Your task to perform on an android device: Open sound settings Image 0: 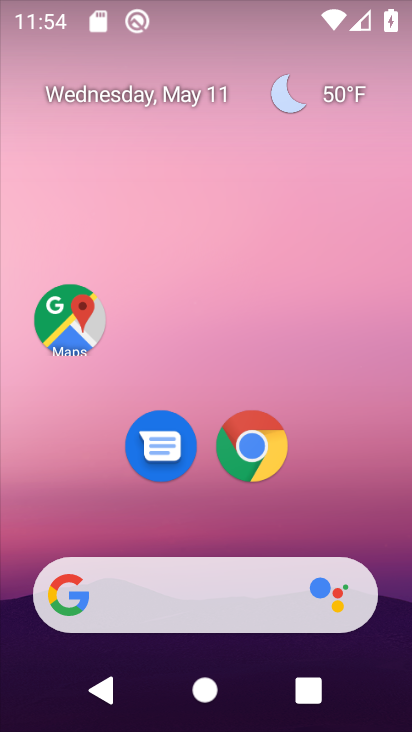
Step 0: drag from (373, 350) to (380, 131)
Your task to perform on an android device: Open sound settings Image 1: 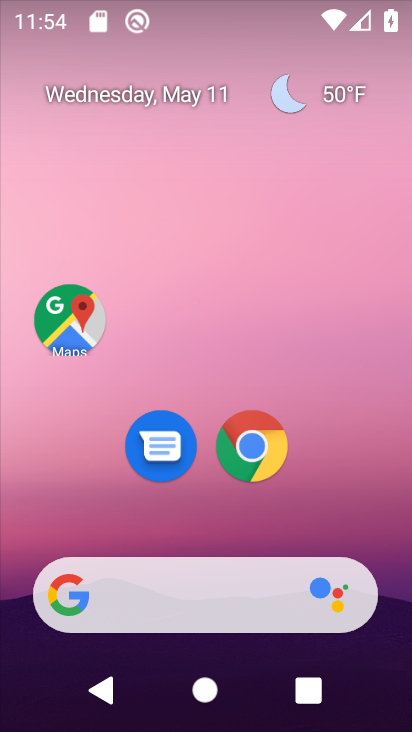
Step 1: drag from (330, 486) to (378, 106)
Your task to perform on an android device: Open sound settings Image 2: 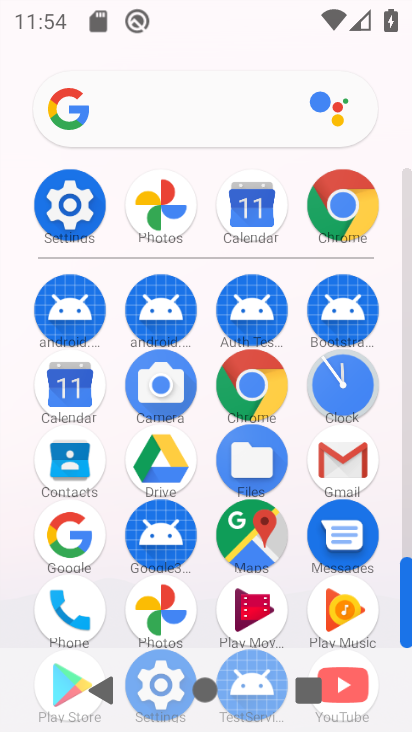
Step 2: click (73, 222)
Your task to perform on an android device: Open sound settings Image 3: 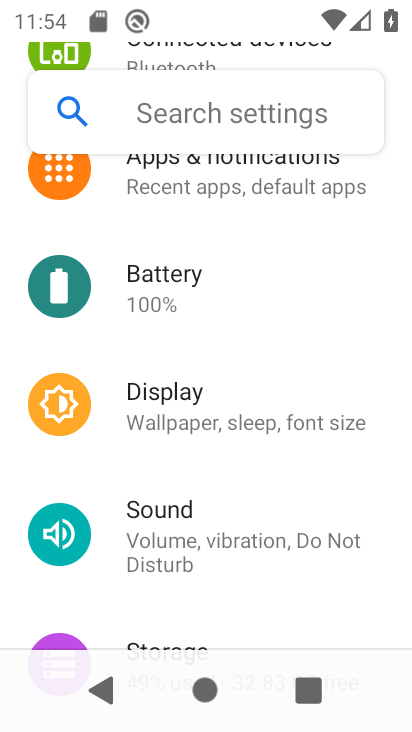
Step 3: click (218, 519)
Your task to perform on an android device: Open sound settings Image 4: 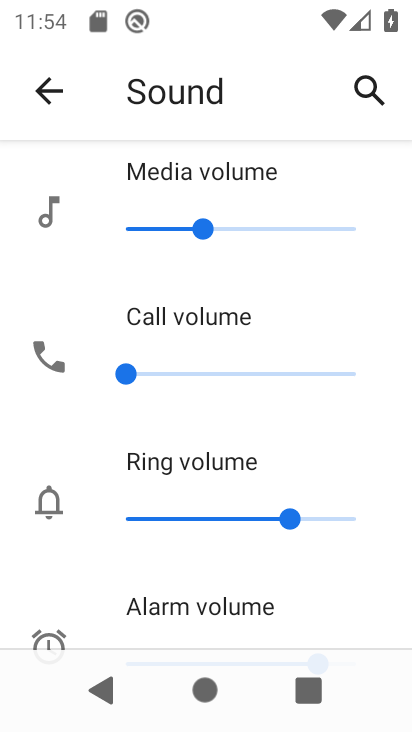
Step 4: task complete